Your task to perform on an android device: What is the recent news? Image 0: 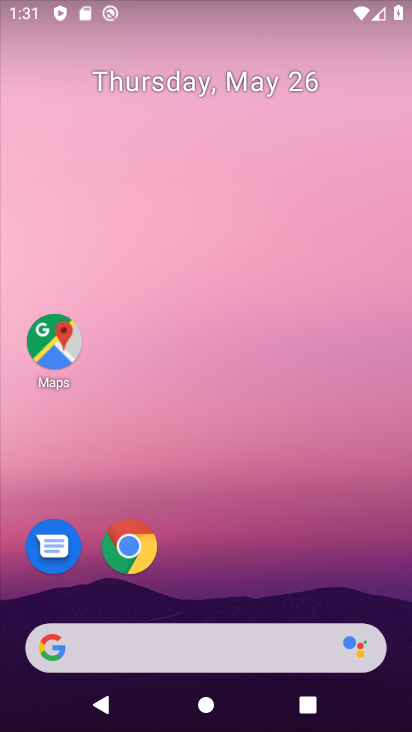
Step 0: drag from (211, 533) to (296, 71)
Your task to perform on an android device: What is the recent news? Image 1: 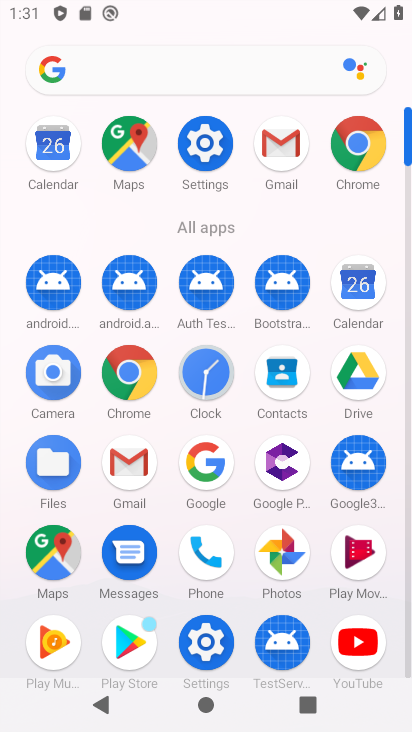
Step 1: click (213, 458)
Your task to perform on an android device: What is the recent news? Image 2: 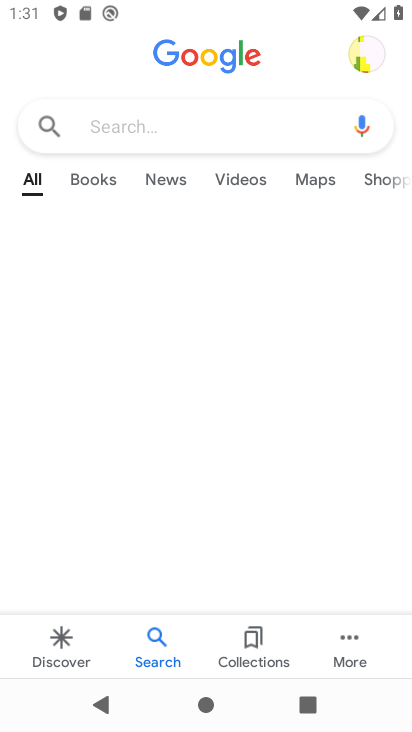
Step 2: click (174, 132)
Your task to perform on an android device: What is the recent news? Image 3: 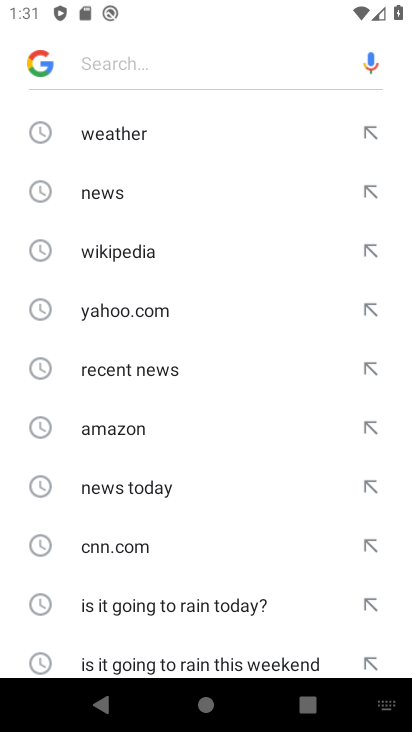
Step 3: click (159, 364)
Your task to perform on an android device: What is the recent news? Image 4: 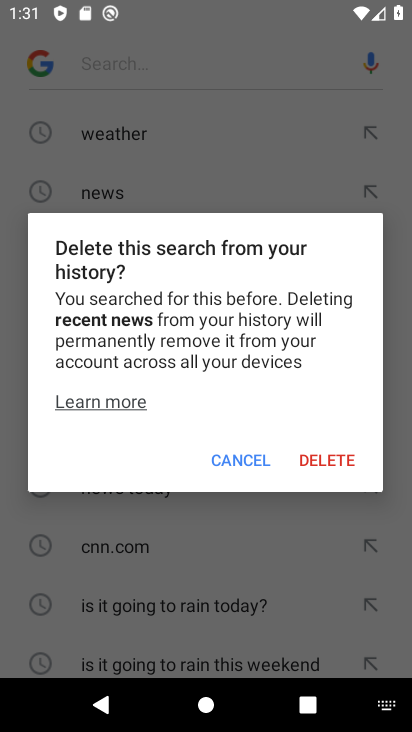
Step 4: click (227, 465)
Your task to perform on an android device: What is the recent news? Image 5: 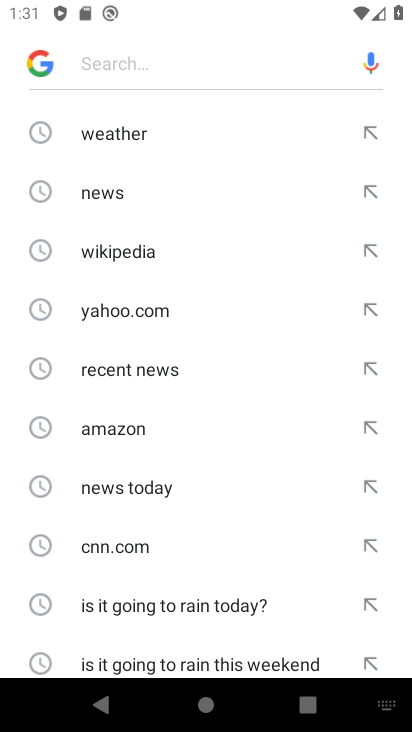
Step 5: click (159, 378)
Your task to perform on an android device: What is the recent news? Image 6: 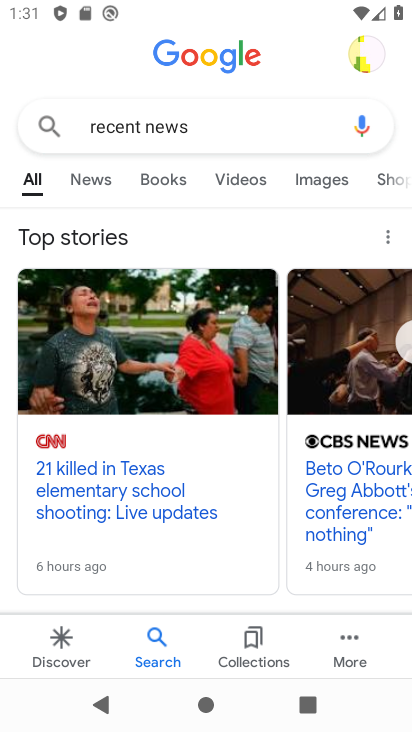
Step 6: task complete